Your task to perform on an android device: open sync settings in chrome Image 0: 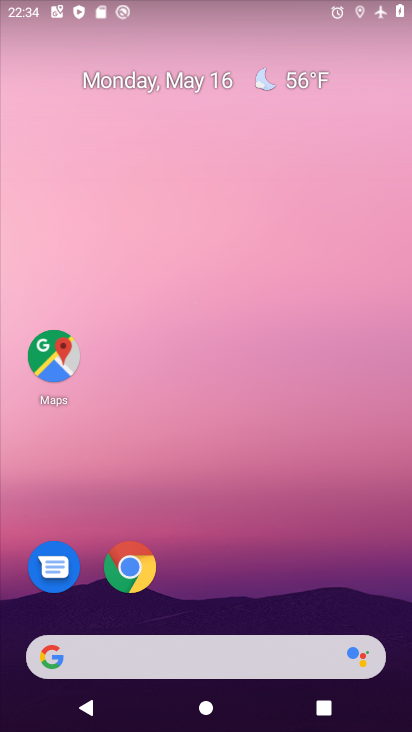
Step 0: drag from (250, 577) to (247, 177)
Your task to perform on an android device: open sync settings in chrome Image 1: 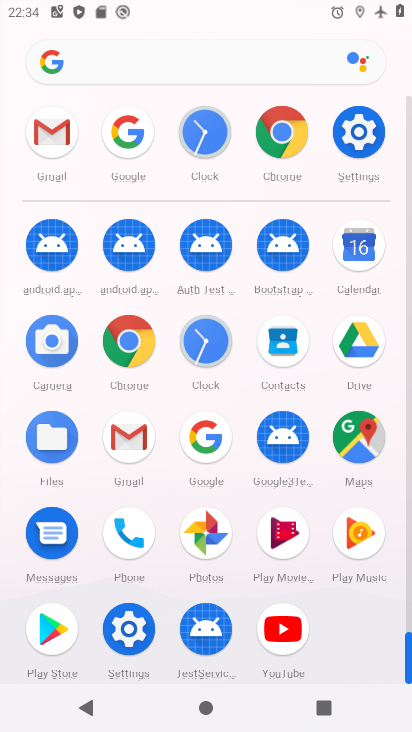
Step 1: click (247, 115)
Your task to perform on an android device: open sync settings in chrome Image 2: 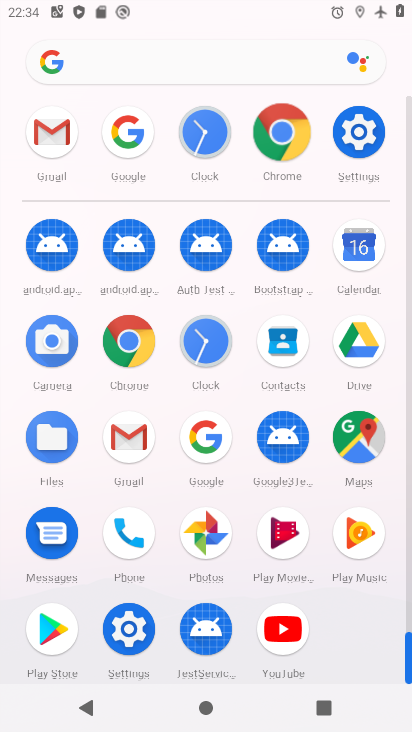
Step 2: click (264, 129)
Your task to perform on an android device: open sync settings in chrome Image 3: 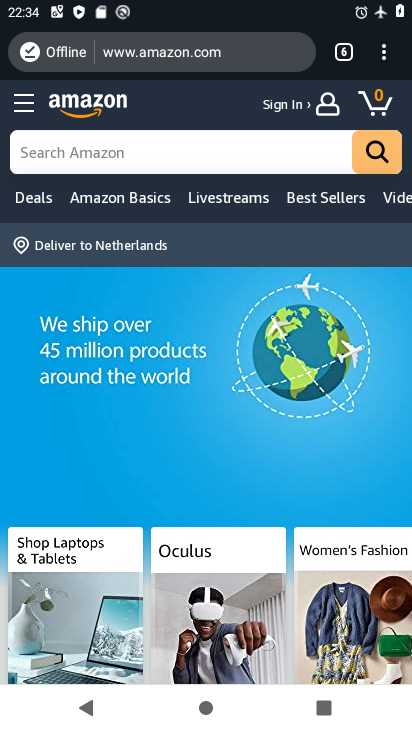
Step 3: click (384, 45)
Your task to perform on an android device: open sync settings in chrome Image 4: 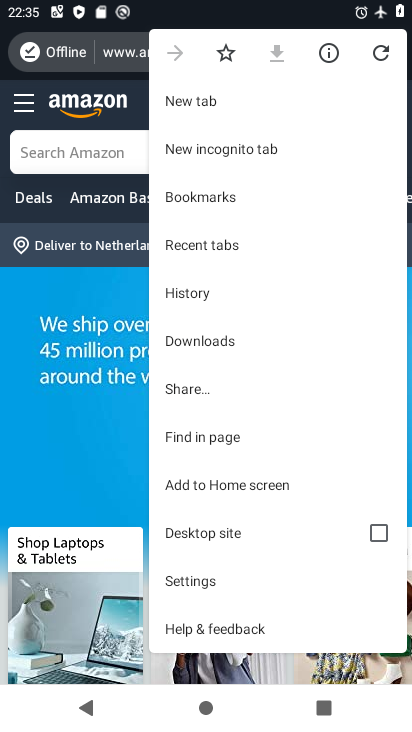
Step 4: click (225, 578)
Your task to perform on an android device: open sync settings in chrome Image 5: 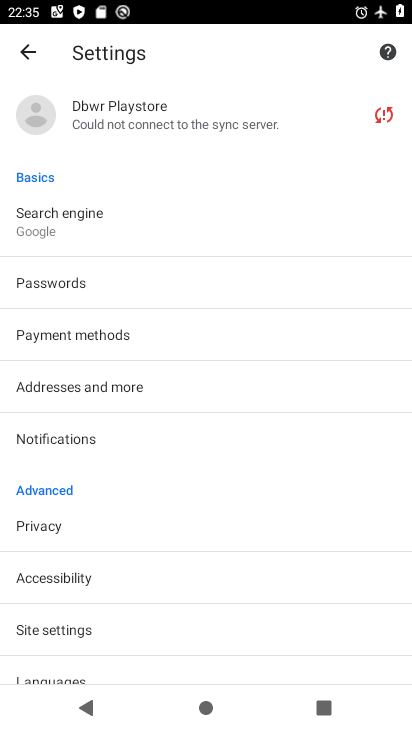
Step 5: click (121, 117)
Your task to perform on an android device: open sync settings in chrome Image 6: 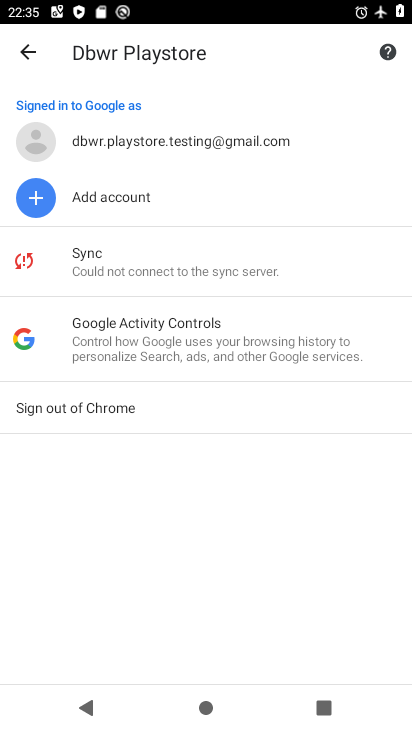
Step 6: task complete